Your task to perform on an android device: find snoozed emails in the gmail app Image 0: 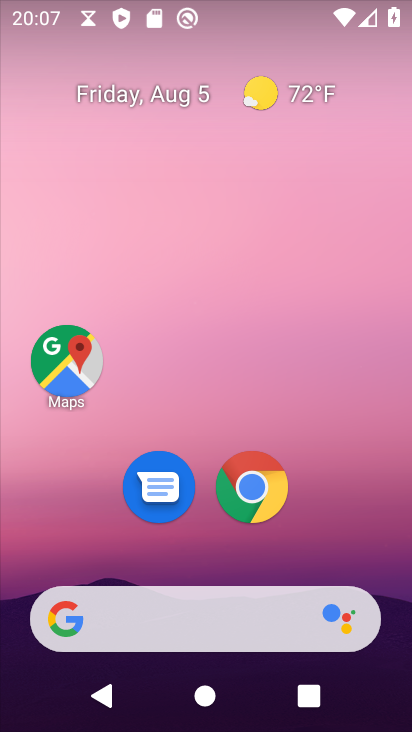
Step 0: press home button
Your task to perform on an android device: find snoozed emails in the gmail app Image 1: 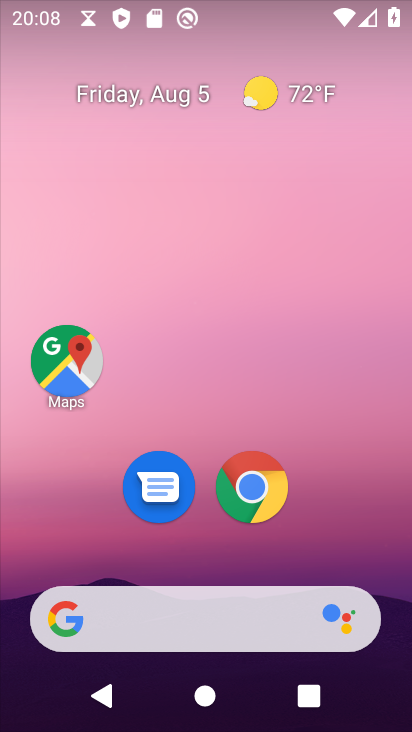
Step 1: drag from (161, 621) to (284, 118)
Your task to perform on an android device: find snoozed emails in the gmail app Image 2: 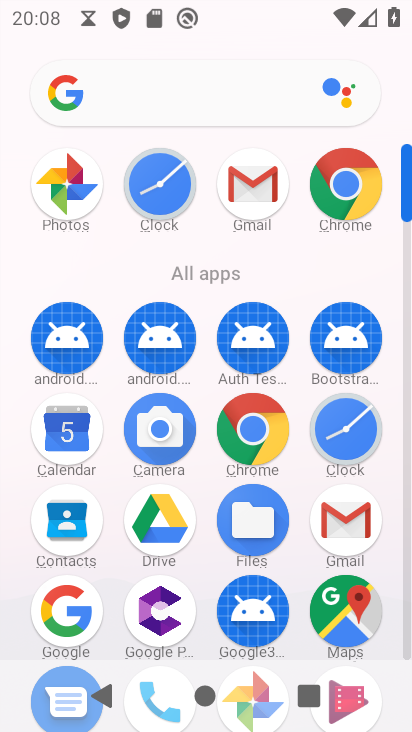
Step 2: click (264, 187)
Your task to perform on an android device: find snoozed emails in the gmail app Image 3: 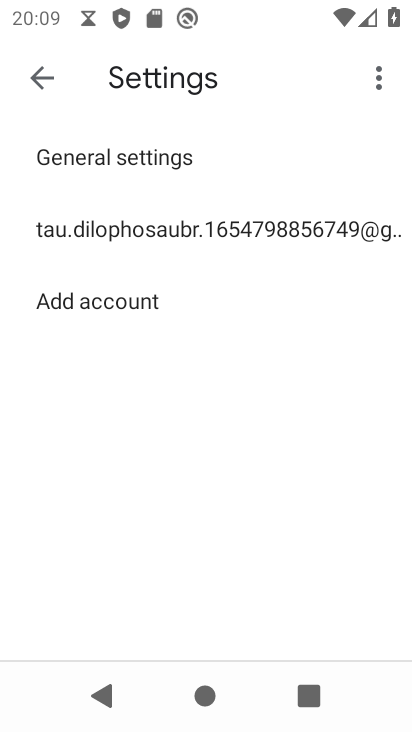
Step 3: click (44, 69)
Your task to perform on an android device: find snoozed emails in the gmail app Image 4: 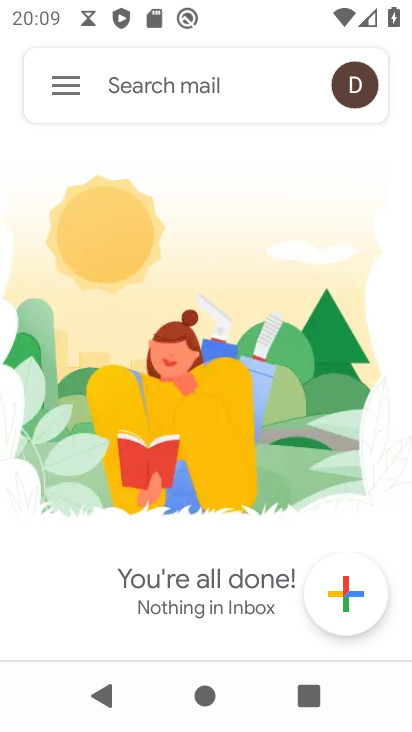
Step 4: drag from (212, 513) to (305, 175)
Your task to perform on an android device: find snoozed emails in the gmail app Image 5: 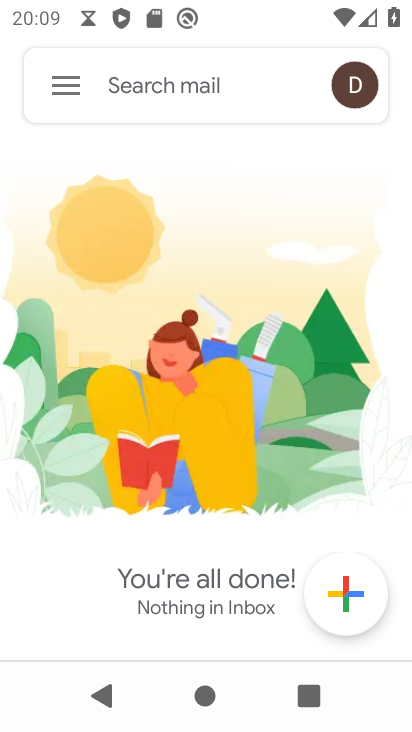
Step 5: click (69, 77)
Your task to perform on an android device: find snoozed emails in the gmail app Image 6: 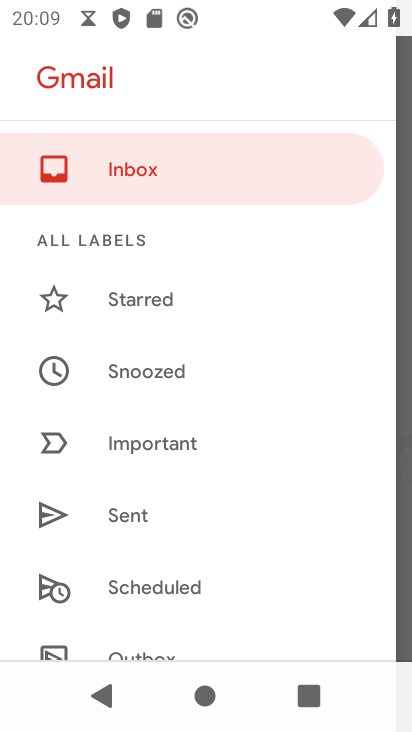
Step 6: drag from (237, 582) to (325, 247)
Your task to perform on an android device: find snoozed emails in the gmail app Image 7: 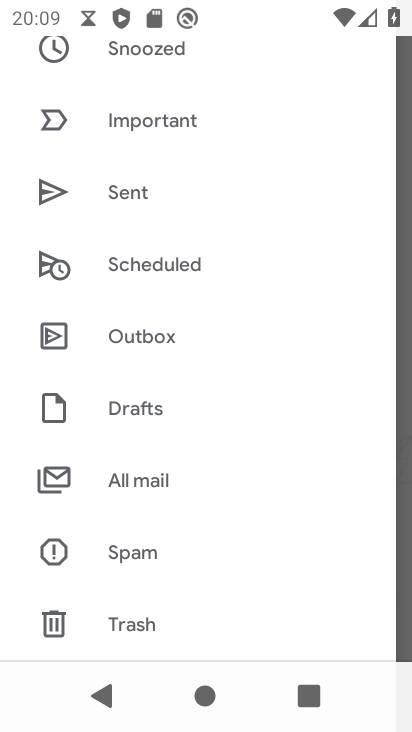
Step 7: drag from (249, 533) to (322, 314)
Your task to perform on an android device: find snoozed emails in the gmail app Image 8: 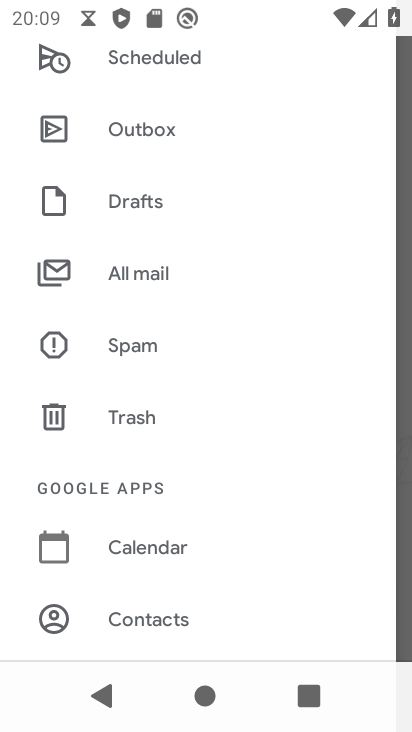
Step 8: click (147, 267)
Your task to perform on an android device: find snoozed emails in the gmail app Image 9: 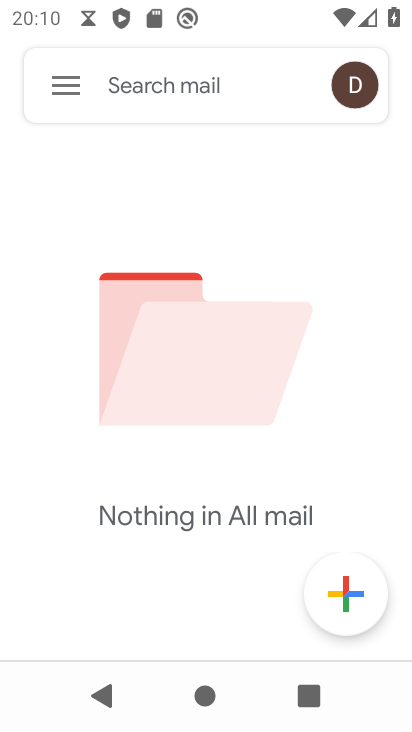
Step 9: click (69, 100)
Your task to perform on an android device: find snoozed emails in the gmail app Image 10: 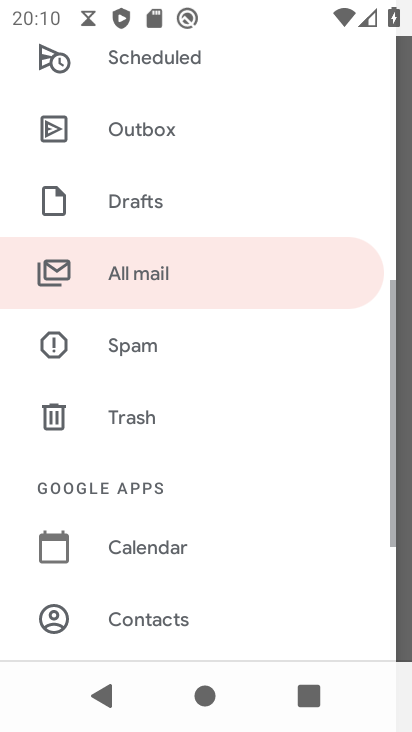
Step 10: drag from (293, 191) to (248, 607)
Your task to perform on an android device: find snoozed emails in the gmail app Image 11: 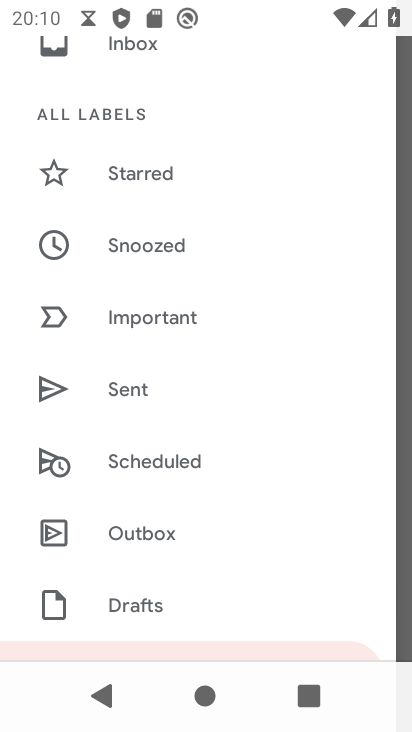
Step 11: click (145, 248)
Your task to perform on an android device: find snoozed emails in the gmail app Image 12: 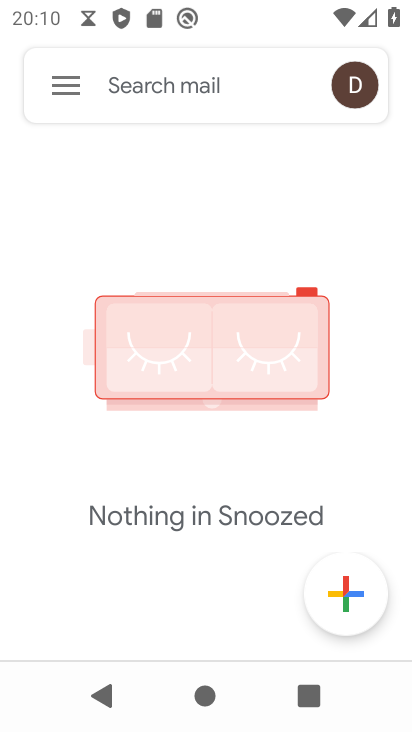
Step 12: task complete